Your task to perform on an android device: Show me recent news Image 0: 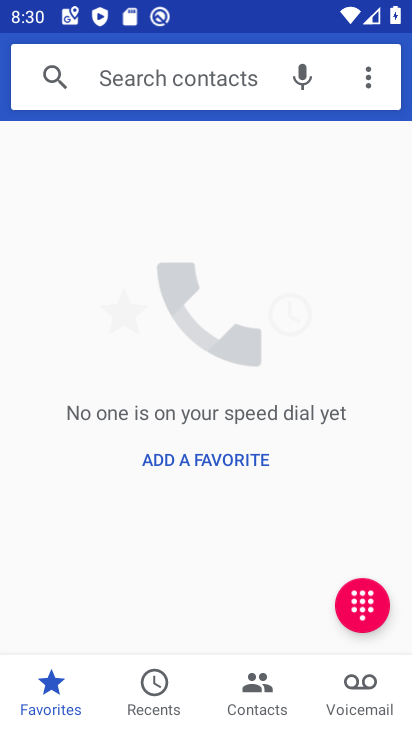
Step 0: press home button
Your task to perform on an android device: Show me recent news Image 1: 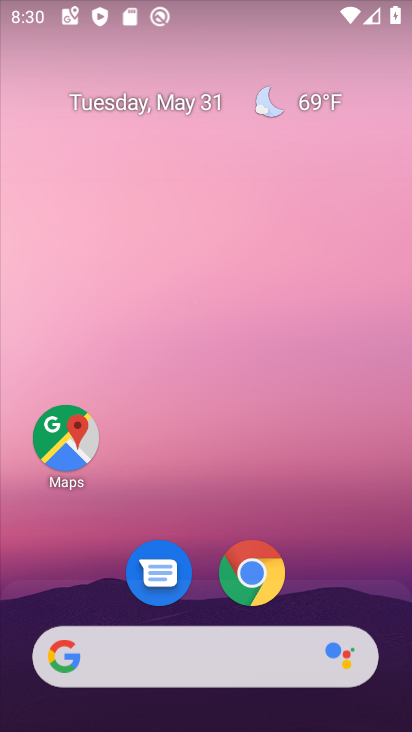
Step 1: click (196, 659)
Your task to perform on an android device: Show me recent news Image 2: 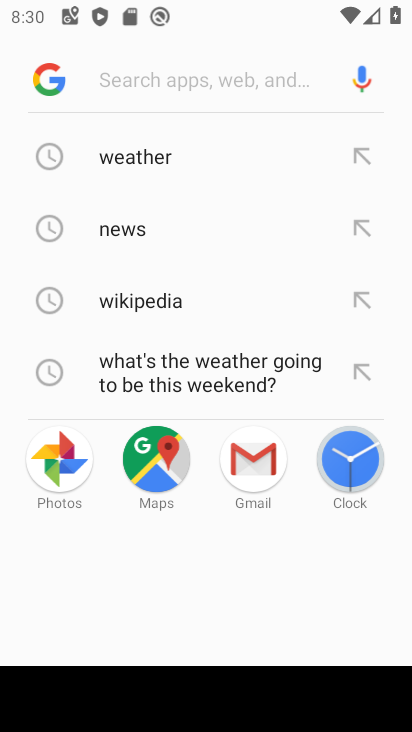
Step 2: type "recent news"
Your task to perform on an android device: Show me recent news Image 3: 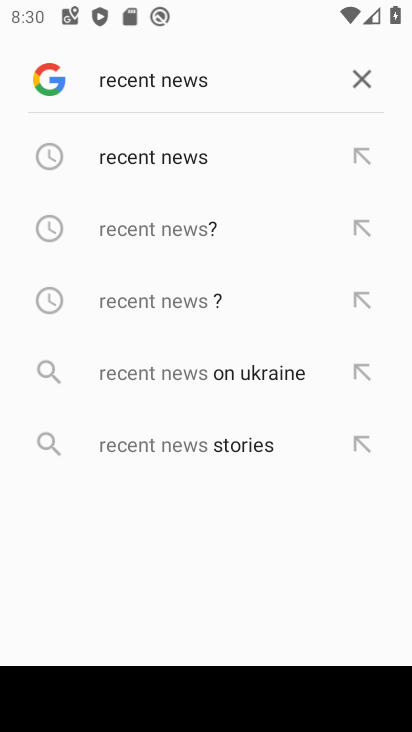
Step 3: click (210, 164)
Your task to perform on an android device: Show me recent news Image 4: 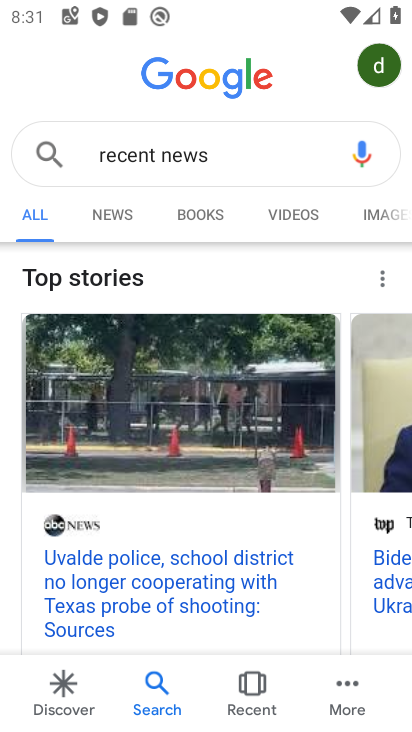
Step 4: task complete